Your task to perform on an android device: When is my next meeting? Image 0: 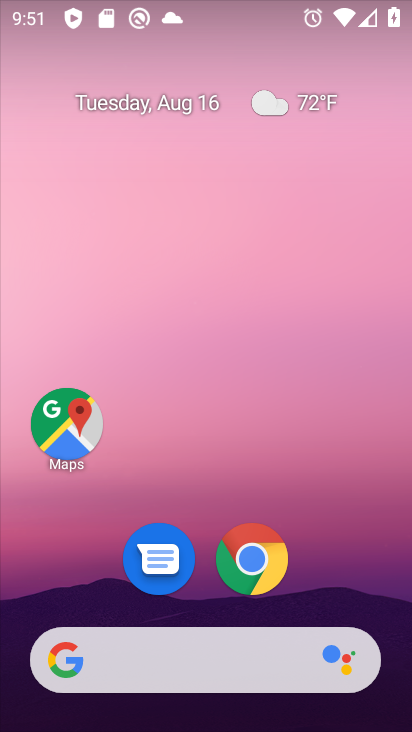
Step 0: drag from (164, 667) to (251, 163)
Your task to perform on an android device: When is my next meeting? Image 1: 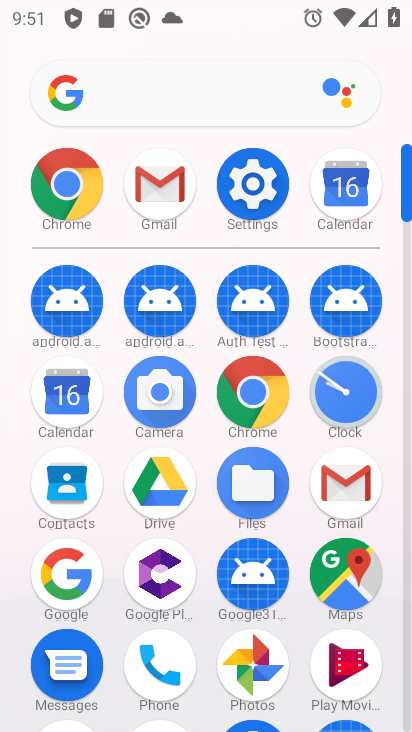
Step 1: click (346, 188)
Your task to perform on an android device: When is my next meeting? Image 2: 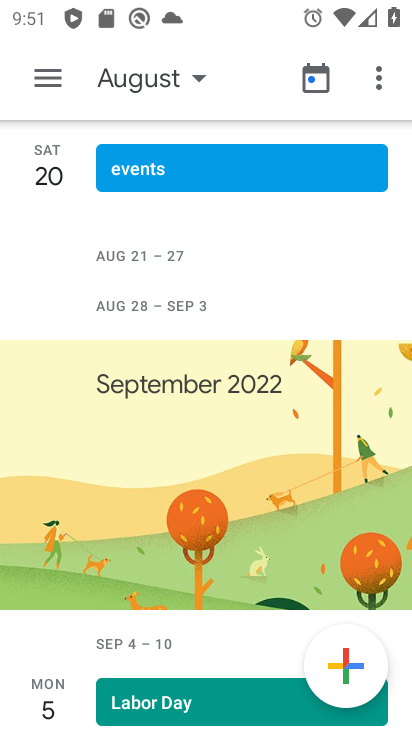
Step 2: click (319, 81)
Your task to perform on an android device: When is my next meeting? Image 3: 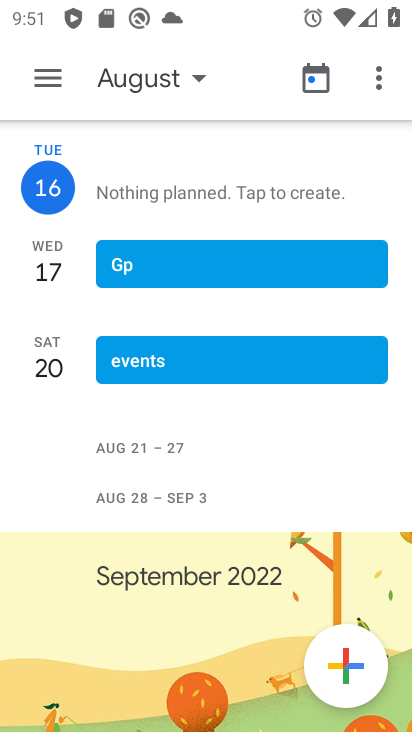
Step 3: click (199, 78)
Your task to perform on an android device: When is my next meeting? Image 4: 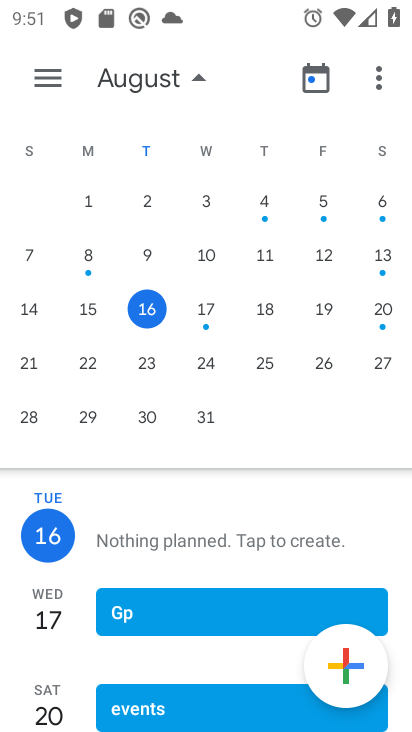
Step 4: click (198, 312)
Your task to perform on an android device: When is my next meeting? Image 5: 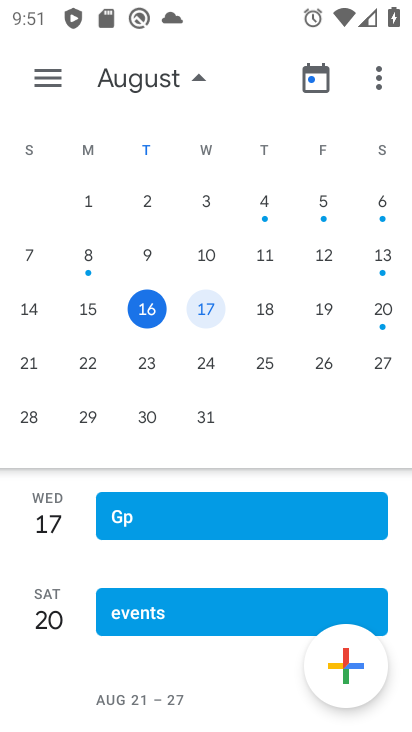
Step 5: click (55, 81)
Your task to perform on an android device: When is my next meeting? Image 6: 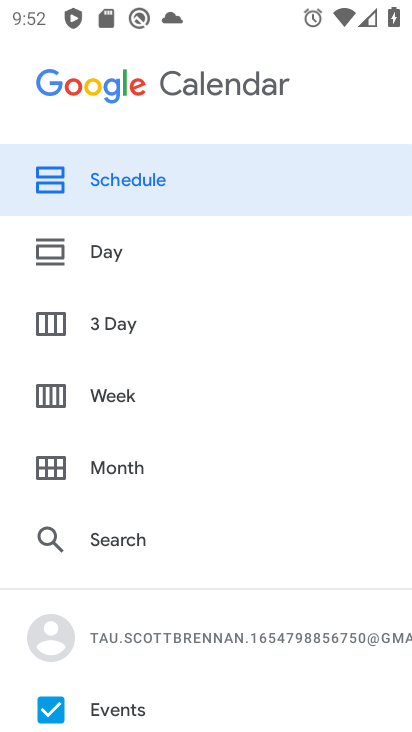
Step 6: click (97, 173)
Your task to perform on an android device: When is my next meeting? Image 7: 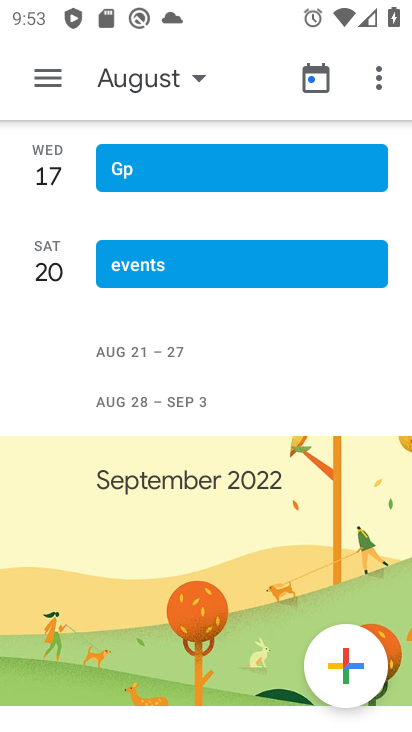
Step 7: task complete